Your task to perform on an android device: turn on the 24-hour format for clock Image 0: 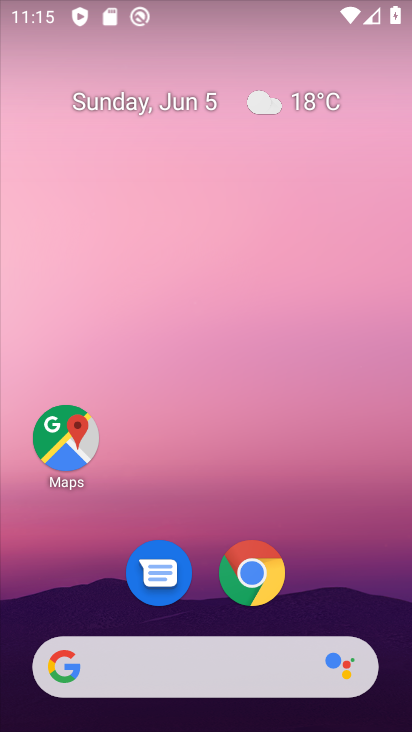
Step 0: drag from (187, 661) to (148, 208)
Your task to perform on an android device: turn on the 24-hour format for clock Image 1: 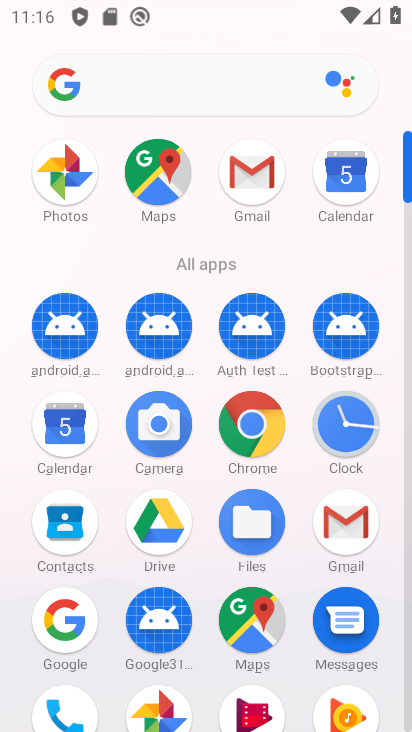
Step 1: drag from (204, 479) to (179, 1)
Your task to perform on an android device: turn on the 24-hour format for clock Image 2: 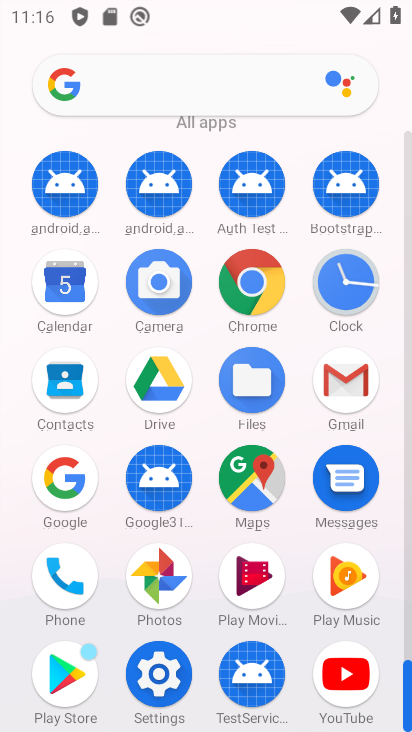
Step 2: click (158, 681)
Your task to perform on an android device: turn on the 24-hour format for clock Image 3: 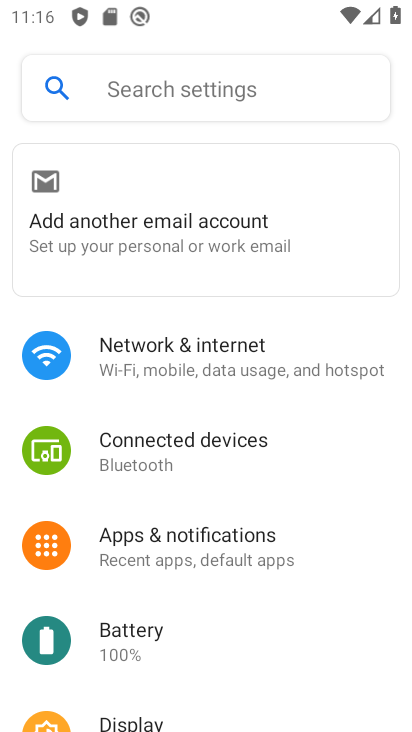
Step 3: drag from (238, 628) to (227, 190)
Your task to perform on an android device: turn on the 24-hour format for clock Image 4: 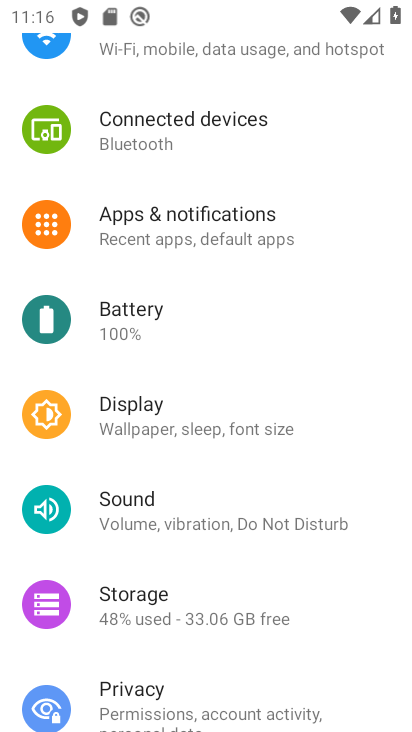
Step 4: drag from (179, 627) to (179, 94)
Your task to perform on an android device: turn on the 24-hour format for clock Image 5: 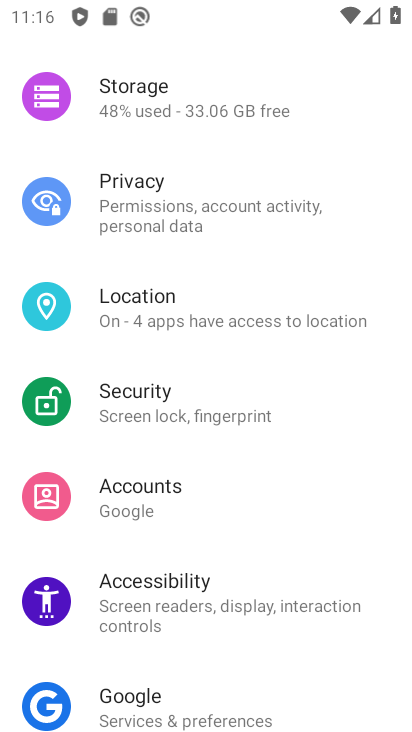
Step 5: drag from (128, 648) to (117, 15)
Your task to perform on an android device: turn on the 24-hour format for clock Image 6: 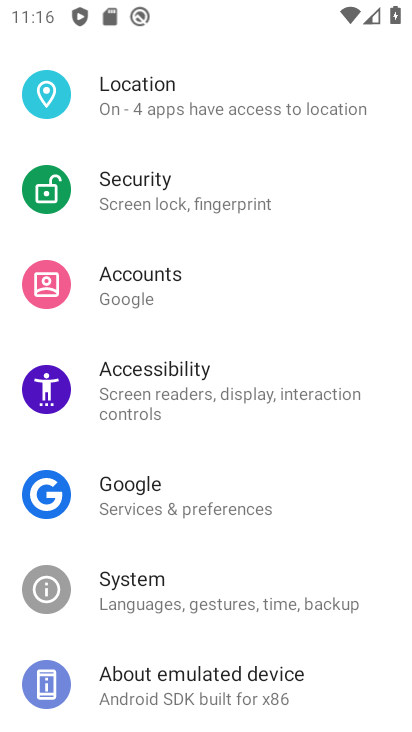
Step 6: click (176, 597)
Your task to perform on an android device: turn on the 24-hour format for clock Image 7: 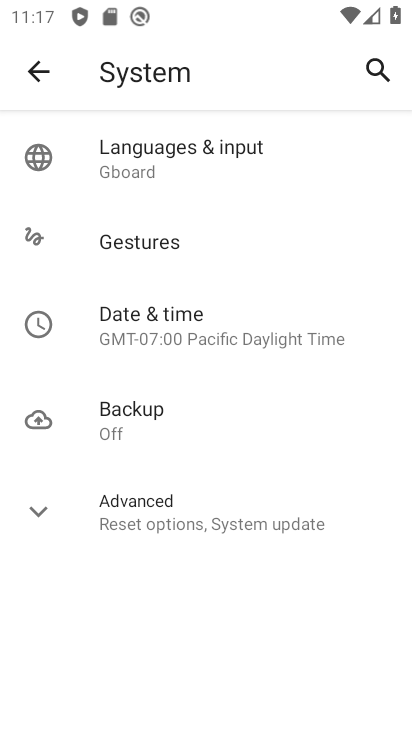
Step 7: click (211, 320)
Your task to perform on an android device: turn on the 24-hour format for clock Image 8: 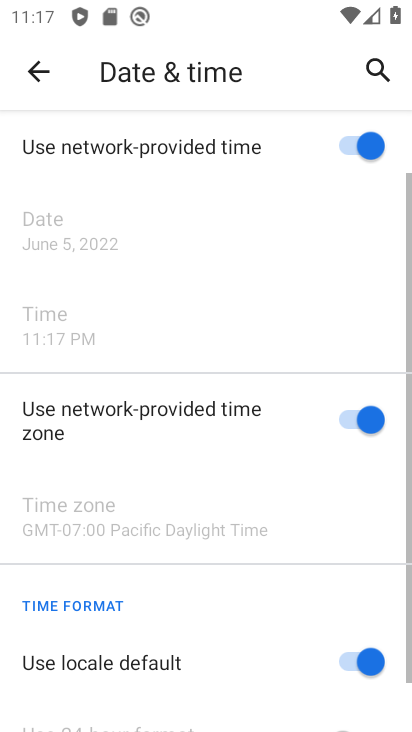
Step 8: drag from (197, 602) to (268, 64)
Your task to perform on an android device: turn on the 24-hour format for clock Image 9: 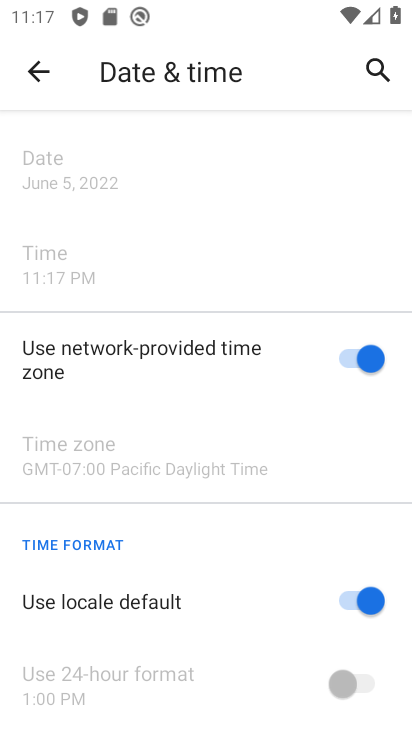
Step 9: click (359, 603)
Your task to perform on an android device: turn on the 24-hour format for clock Image 10: 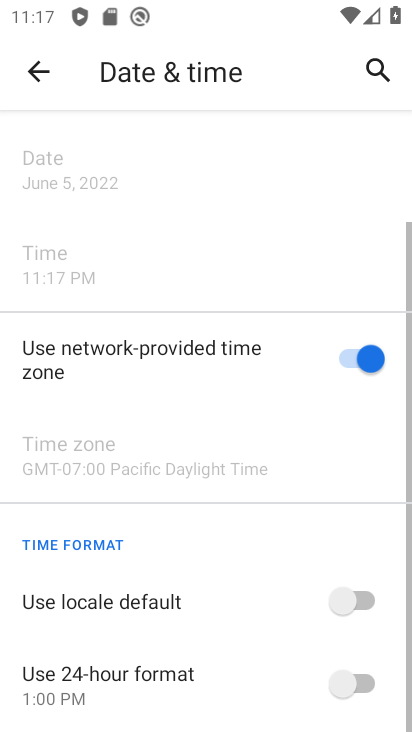
Step 10: click (356, 692)
Your task to perform on an android device: turn on the 24-hour format for clock Image 11: 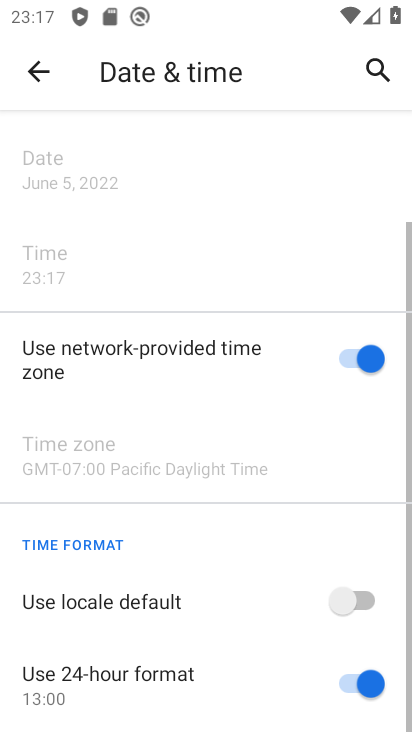
Step 11: task complete